Your task to perform on an android device: Clear all items from cart on ebay. Image 0: 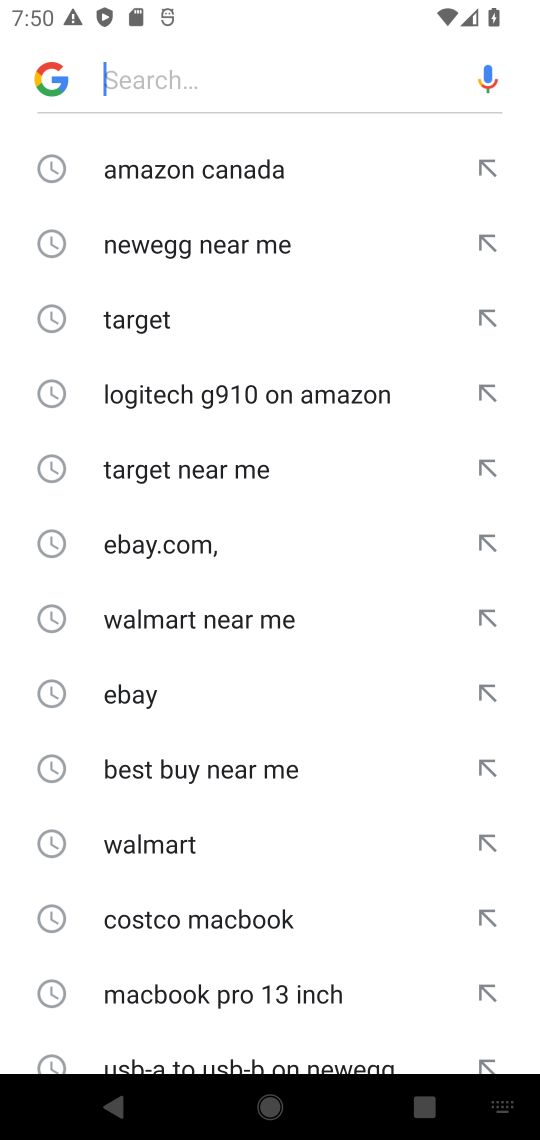
Step 0: click (138, 696)
Your task to perform on an android device: Clear all items from cart on ebay. Image 1: 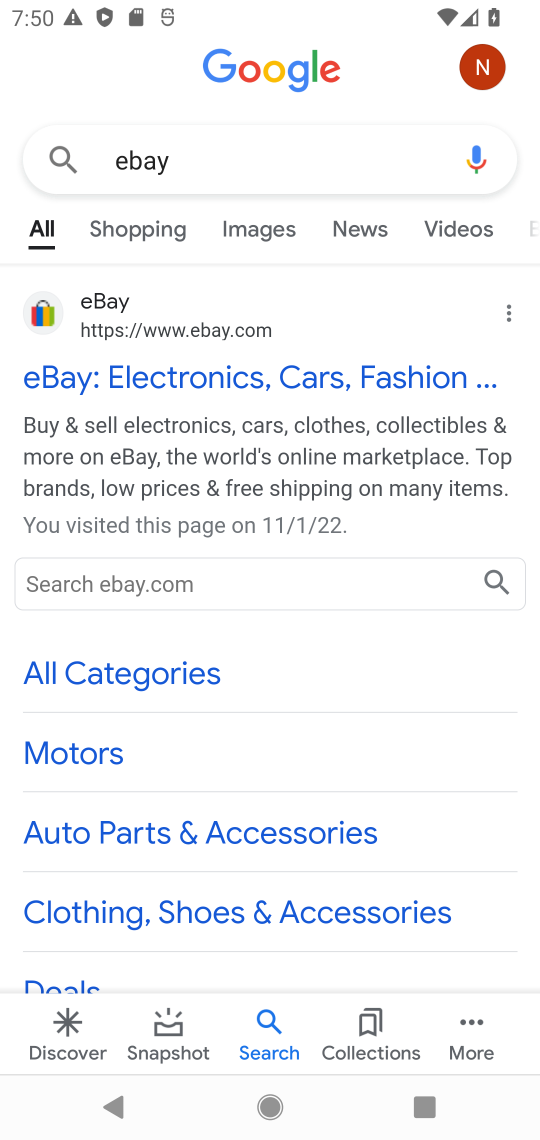
Step 1: click (76, 380)
Your task to perform on an android device: Clear all items from cart on ebay. Image 2: 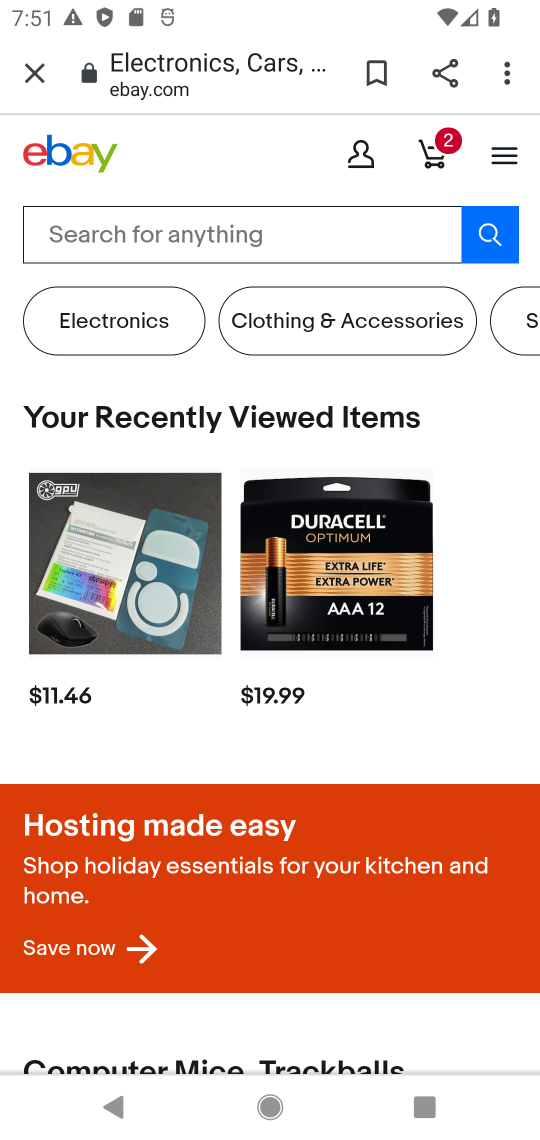
Step 2: click (432, 144)
Your task to perform on an android device: Clear all items from cart on ebay. Image 3: 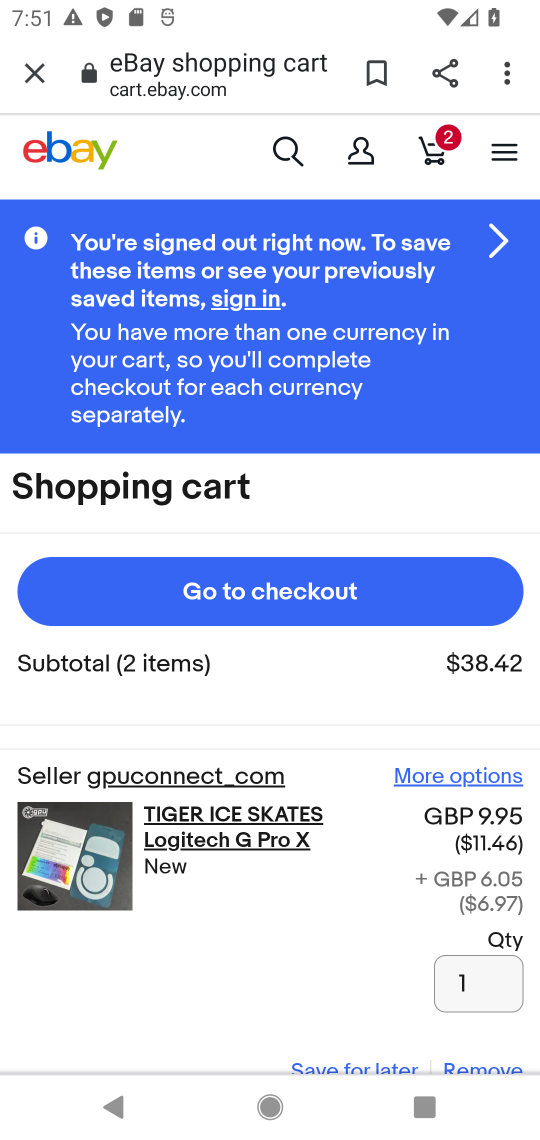
Step 3: drag from (301, 983) to (304, 629)
Your task to perform on an android device: Clear all items from cart on ebay. Image 4: 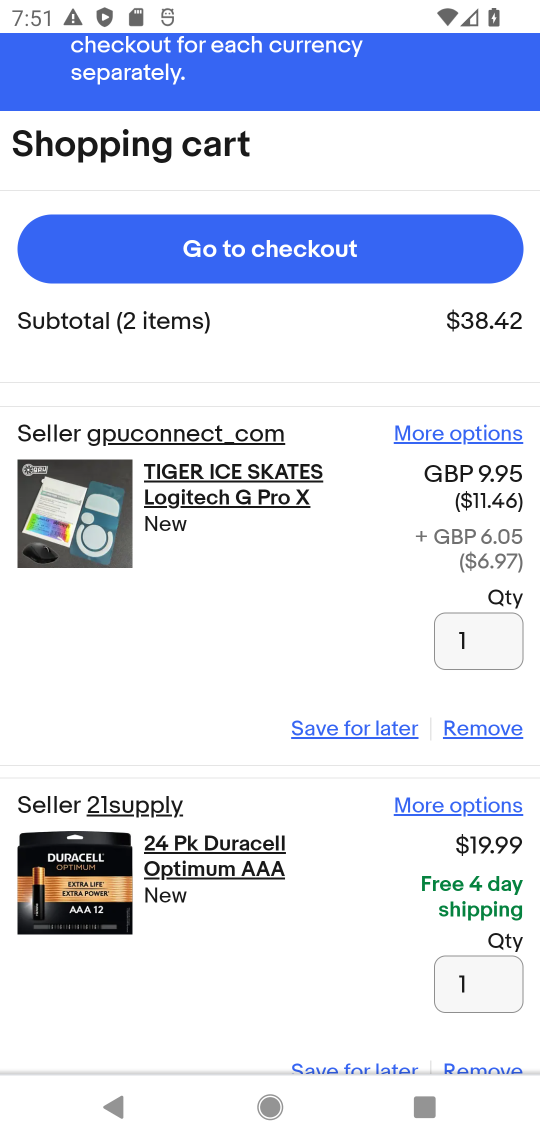
Step 4: click (483, 725)
Your task to perform on an android device: Clear all items from cart on ebay. Image 5: 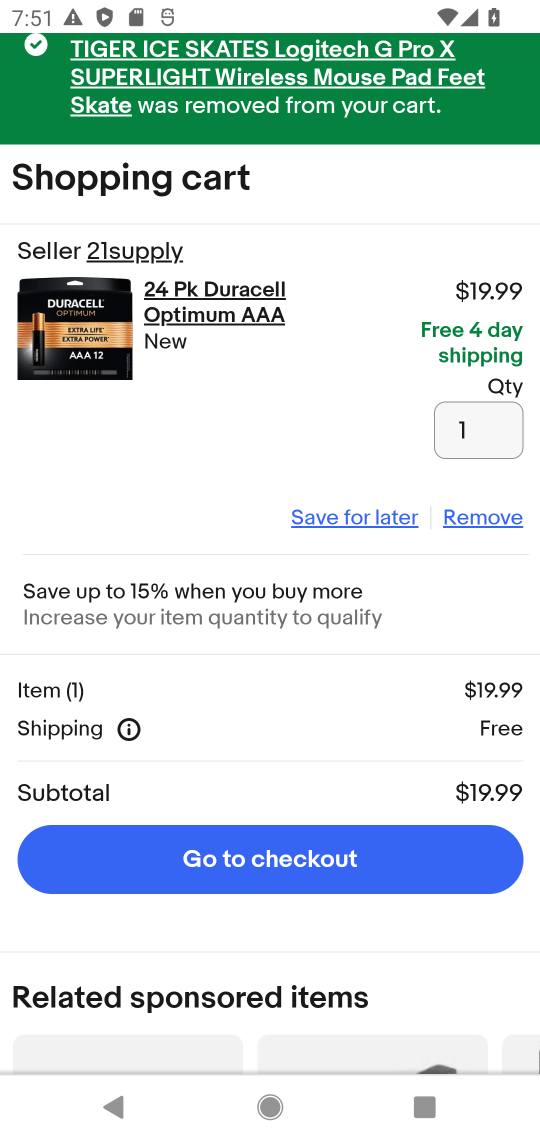
Step 5: click (488, 527)
Your task to perform on an android device: Clear all items from cart on ebay. Image 6: 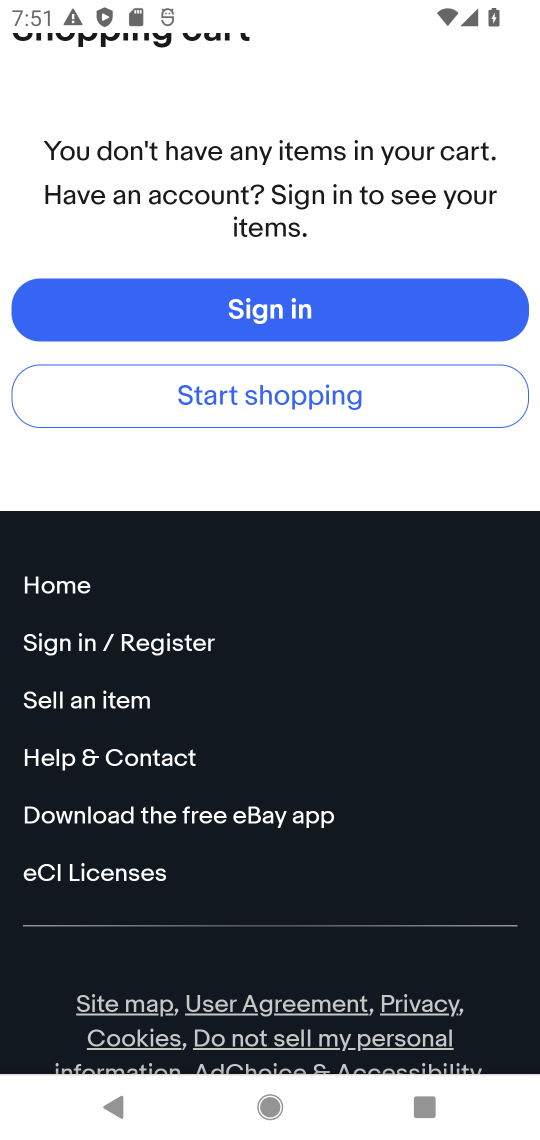
Step 6: task complete